Your task to perform on an android device: turn off javascript in the chrome app Image 0: 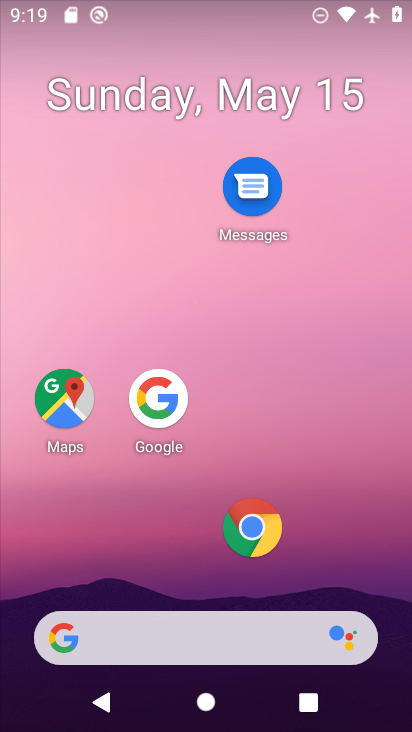
Step 0: press home button
Your task to perform on an android device: turn off javascript in the chrome app Image 1: 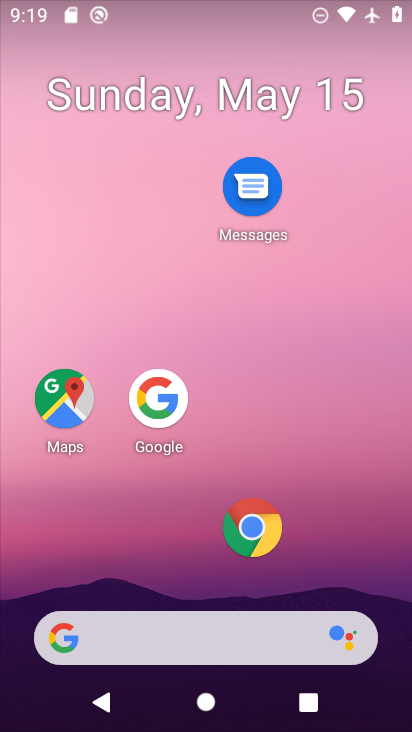
Step 1: click (262, 534)
Your task to perform on an android device: turn off javascript in the chrome app Image 2: 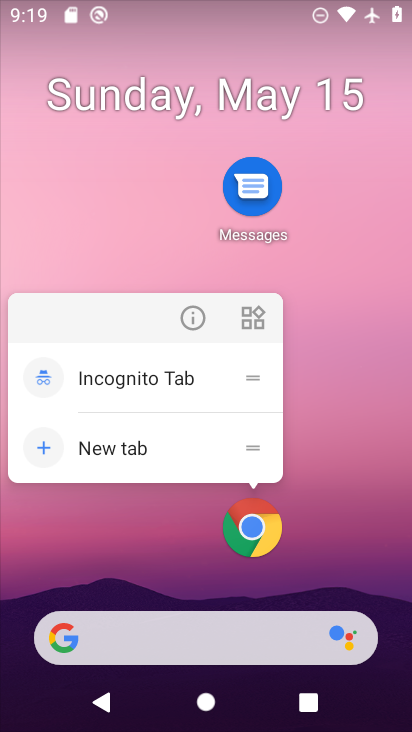
Step 2: click (262, 536)
Your task to perform on an android device: turn off javascript in the chrome app Image 3: 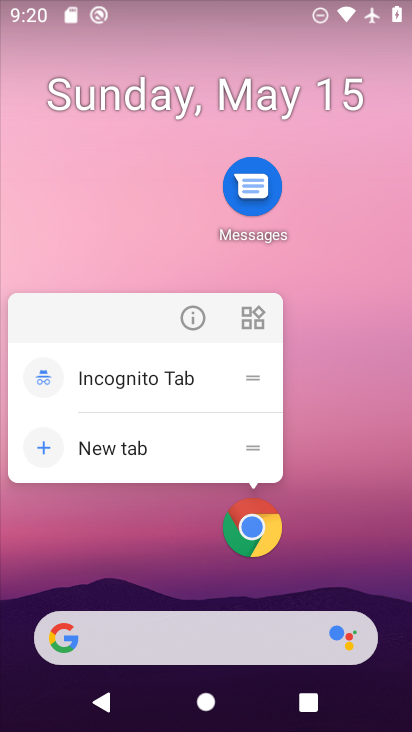
Step 3: click (252, 537)
Your task to perform on an android device: turn off javascript in the chrome app Image 4: 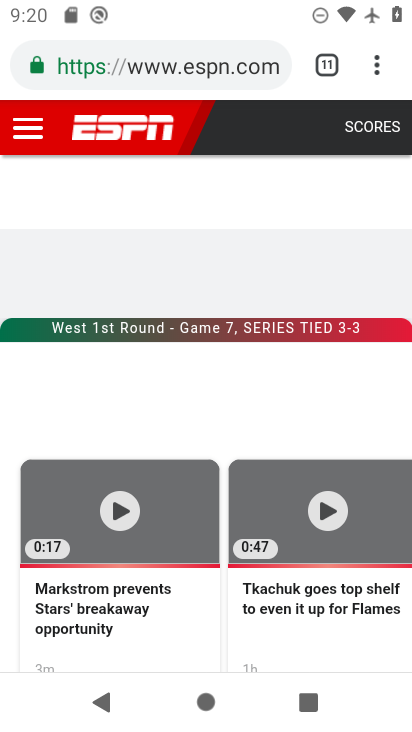
Step 4: drag from (373, 65) to (195, 580)
Your task to perform on an android device: turn off javascript in the chrome app Image 5: 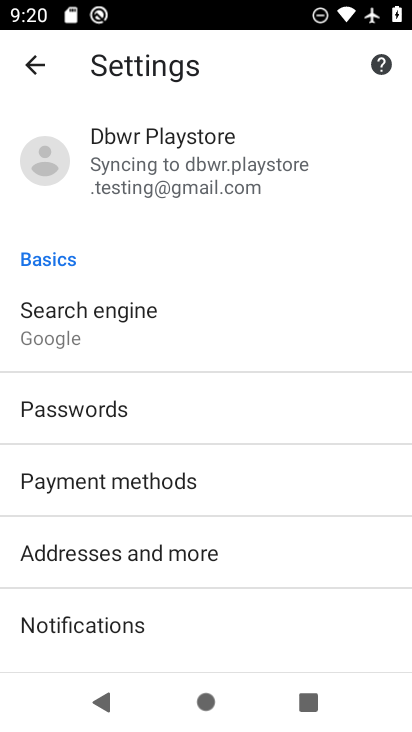
Step 5: drag from (195, 553) to (320, 161)
Your task to perform on an android device: turn off javascript in the chrome app Image 6: 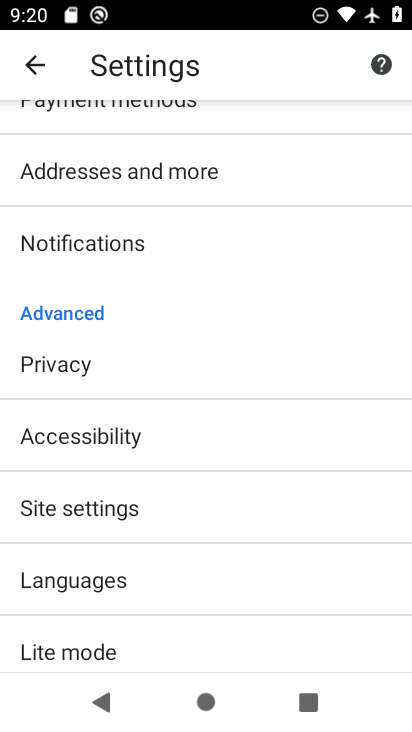
Step 6: click (96, 515)
Your task to perform on an android device: turn off javascript in the chrome app Image 7: 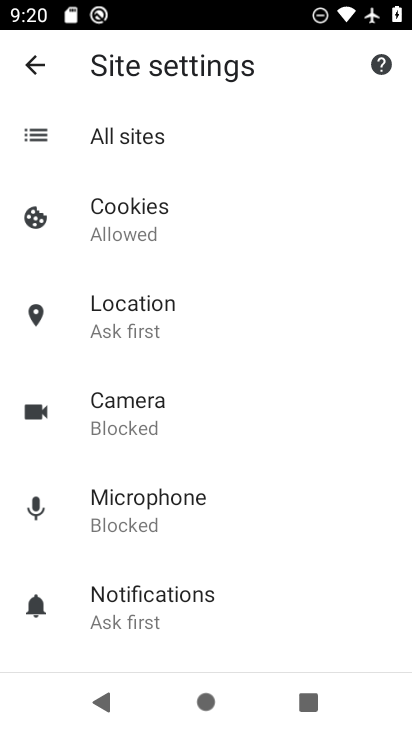
Step 7: drag from (246, 562) to (267, 189)
Your task to perform on an android device: turn off javascript in the chrome app Image 8: 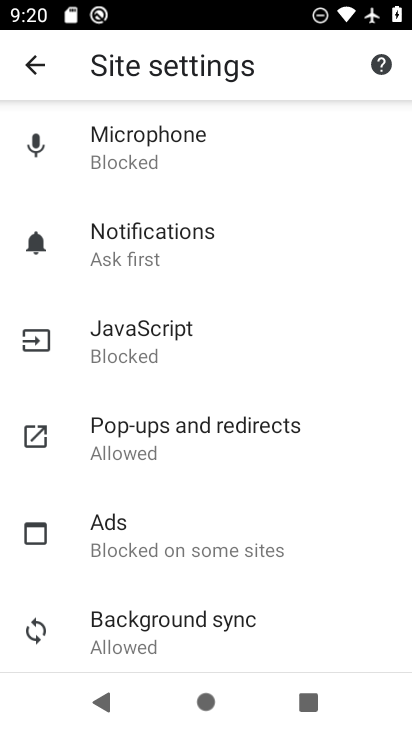
Step 8: click (107, 345)
Your task to perform on an android device: turn off javascript in the chrome app Image 9: 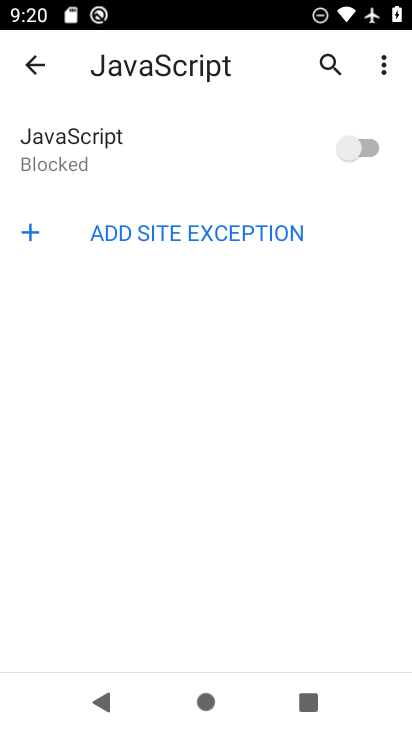
Step 9: click (362, 142)
Your task to perform on an android device: turn off javascript in the chrome app Image 10: 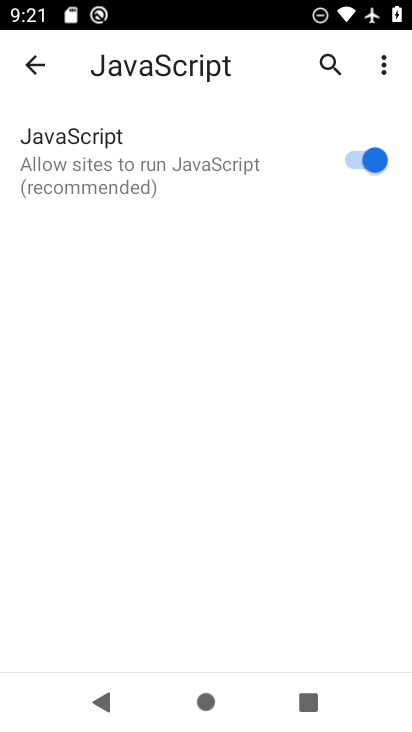
Step 10: click (357, 162)
Your task to perform on an android device: turn off javascript in the chrome app Image 11: 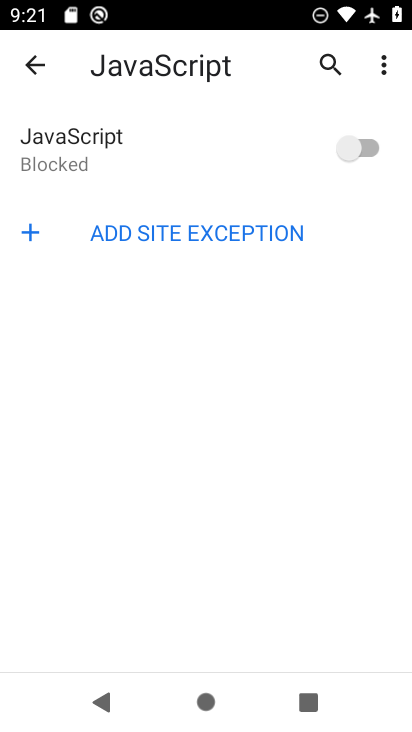
Step 11: task complete